Your task to perform on an android device: allow notifications from all sites in the chrome app Image 0: 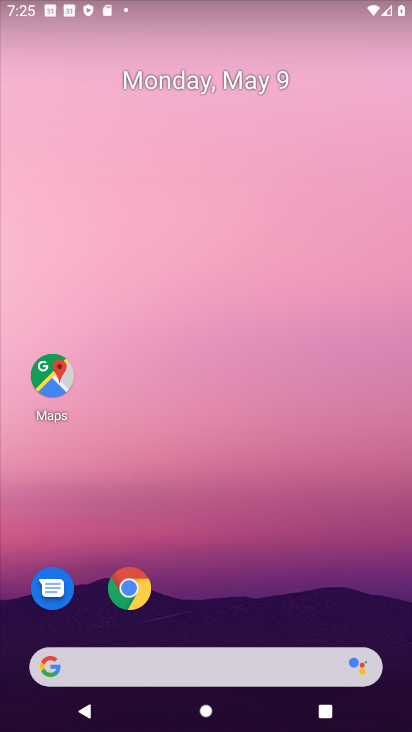
Step 0: drag from (152, 663) to (352, 134)
Your task to perform on an android device: allow notifications from all sites in the chrome app Image 1: 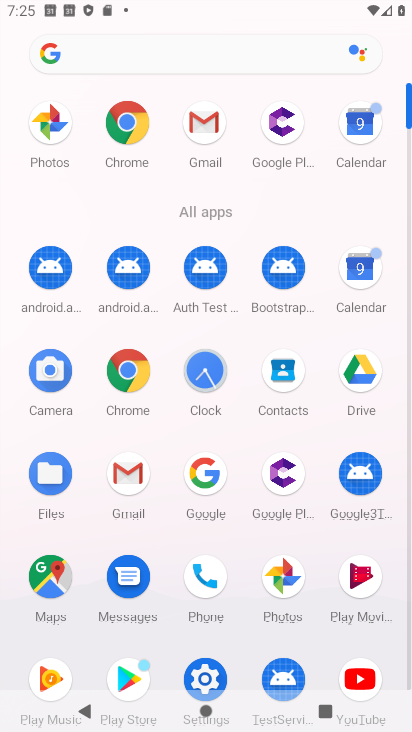
Step 1: click (124, 124)
Your task to perform on an android device: allow notifications from all sites in the chrome app Image 2: 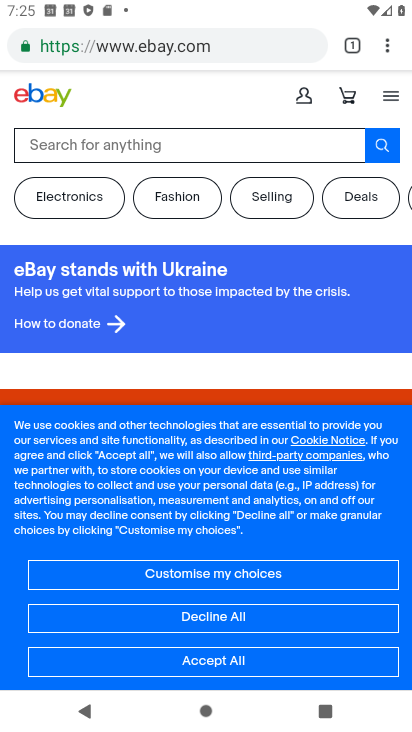
Step 2: drag from (389, 45) to (247, 540)
Your task to perform on an android device: allow notifications from all sites in the chrome app Image 3: 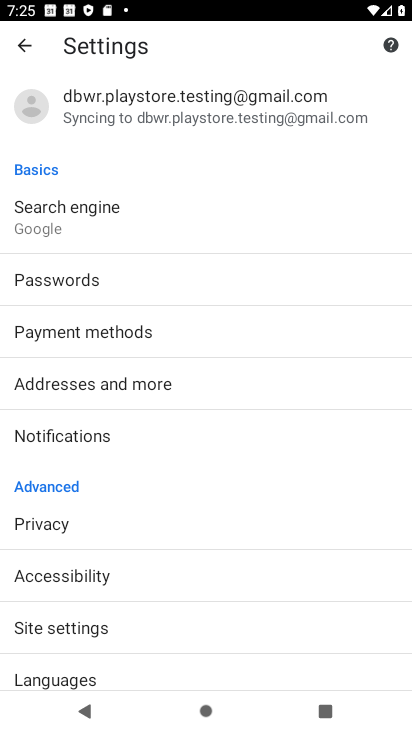
Step 3: click (80, 629)
Your task to perform on an android device: allow notifications from all sites in the chrome app Image 4: 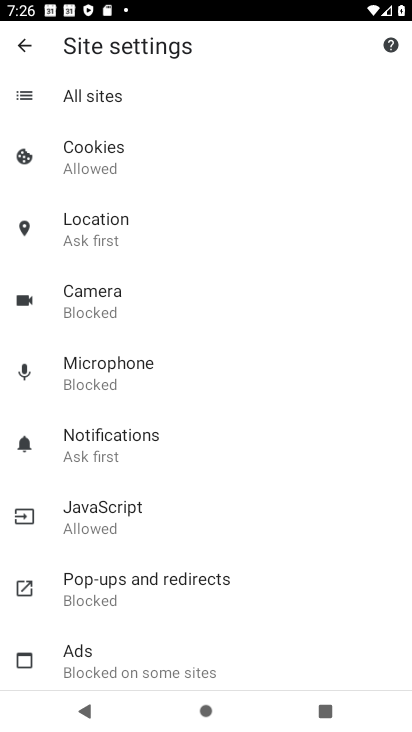
Step 4: click (134, 438)
Your task to perform on an android device: allow notifications from all sites in the chrome app Image 5: 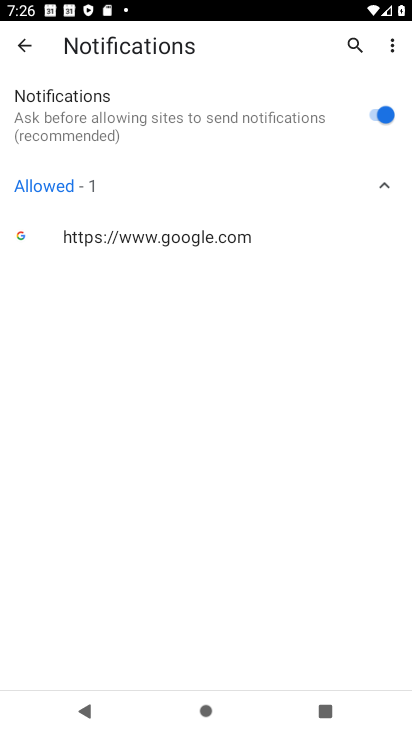
Step 5: task complete